Your task to perform on an android device: search for starred emails in the gmail app Image 0: 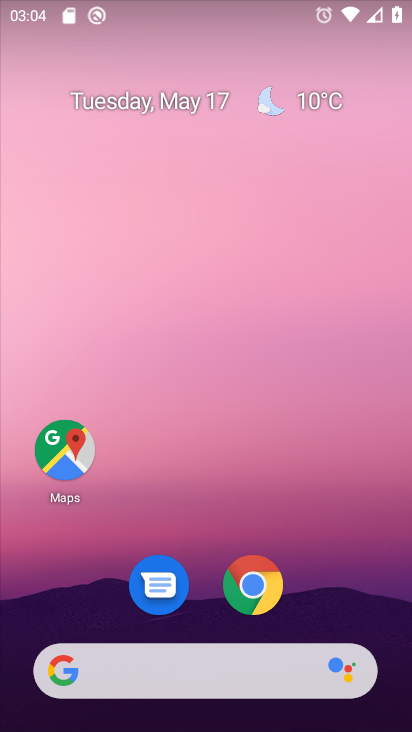
Step 0: drag from (221, 523) to (204, 17)
Your task to perform on an android device: search for starred emails in the gmail app Image 1: 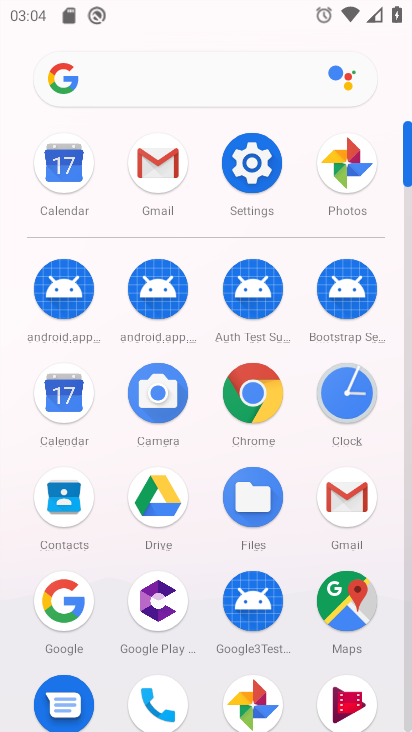
Step 1: click (165, 150)
Your task to perform on an android device: search for starred emails in the gmail app Image 2: 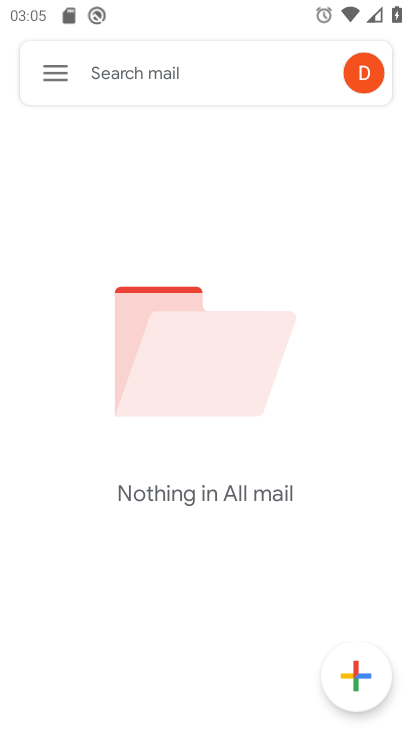
Step 2: task complete